Your task to perform on an android device: Open ESPN.com Image 0: 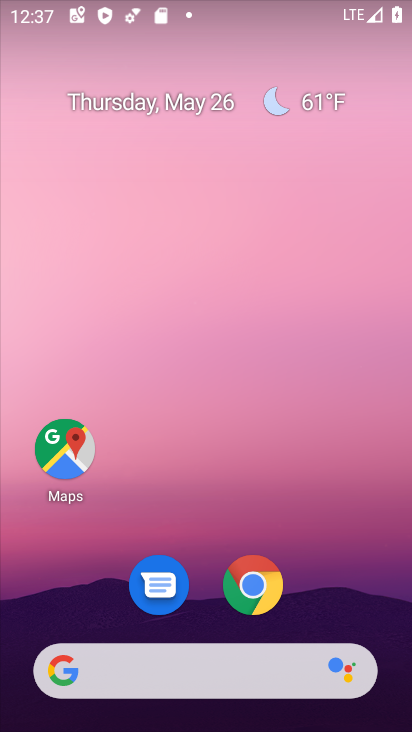
Step 0: click (228, 527)
Your task to perform on an android device: Open ESPN.com Image 1: 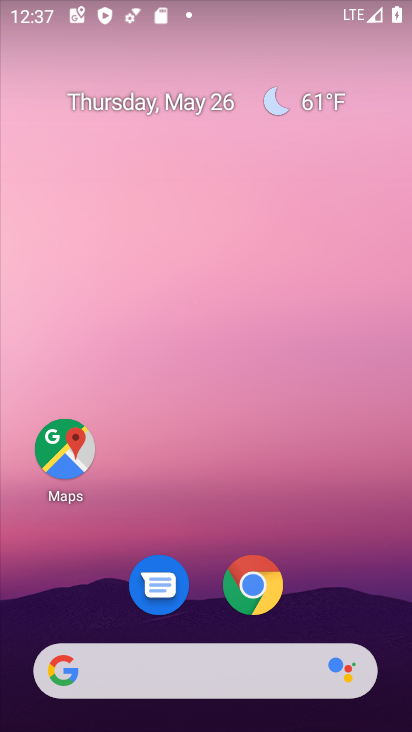
Step 1: click (223, 669)
Your task to perform on an android device: Open ESPN.com Image 2: 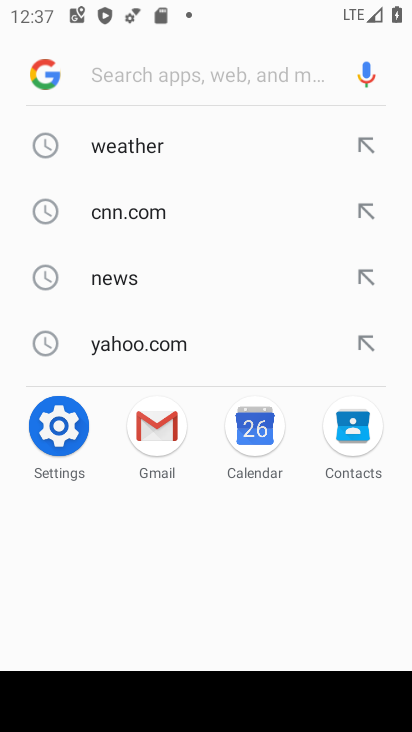
Step 2: type "espn.com"
Your task to perform on an android device: Open ESPN.com Image 3: 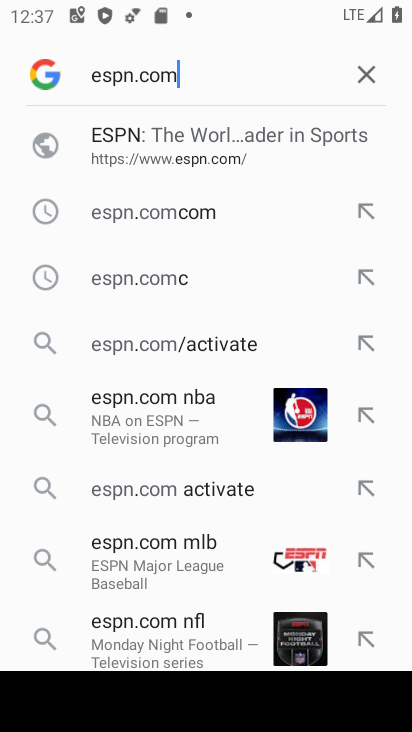
Step 3: click (132, 136)
Your task to perform on an android device: Open ESPN.com Image 4: 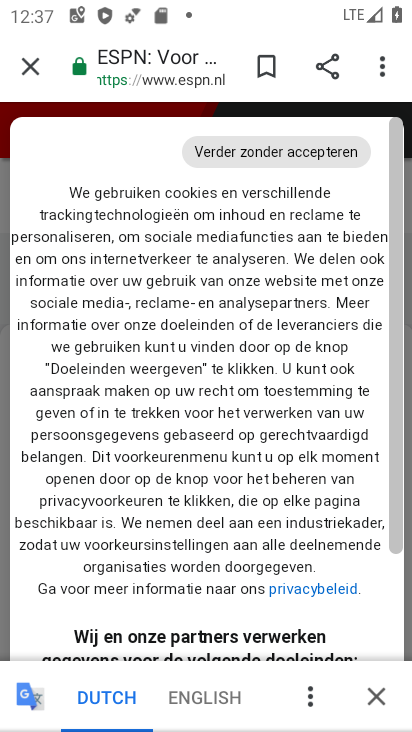
Step 4: task complete